Your task to perform on an android device: Turn on the flashlight Image 0: 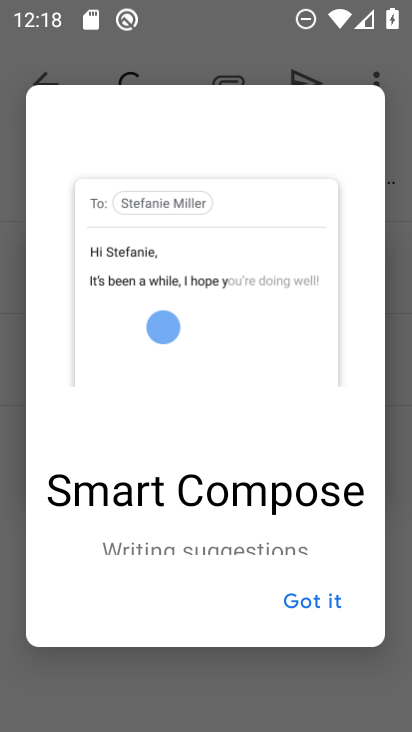
Step 0: press home button
Your task to perform on an android device: Turn on the flashlight Image 1: 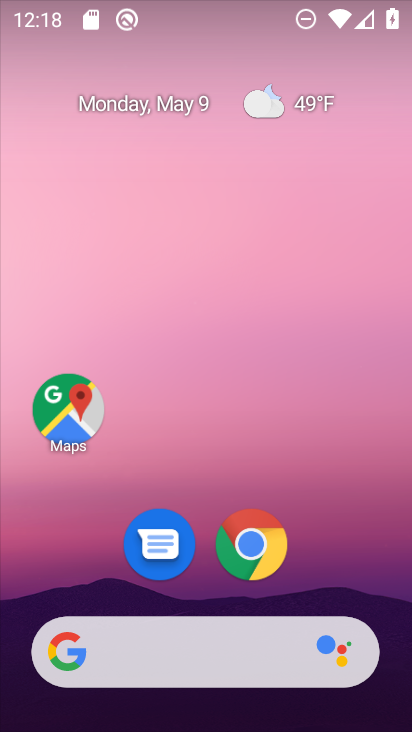
Step 1: drag from (345, 566) to (321, 54)
Your task to perform on an android device: Turn on the flashlight Image 2: 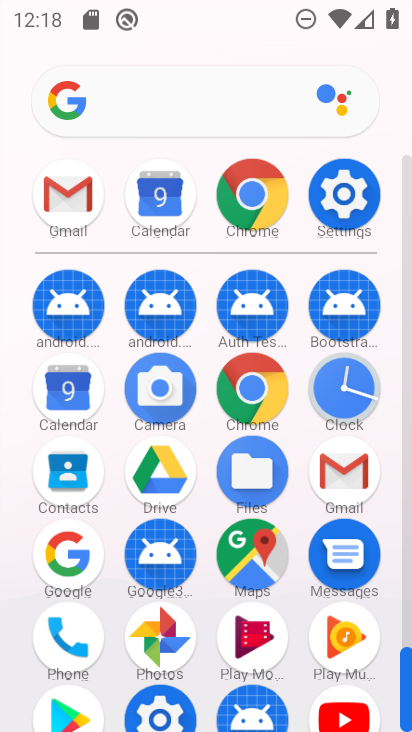
Step 2: click (346, 196)
Your task to perform on an android device: Turn on the flashlight Image 3: 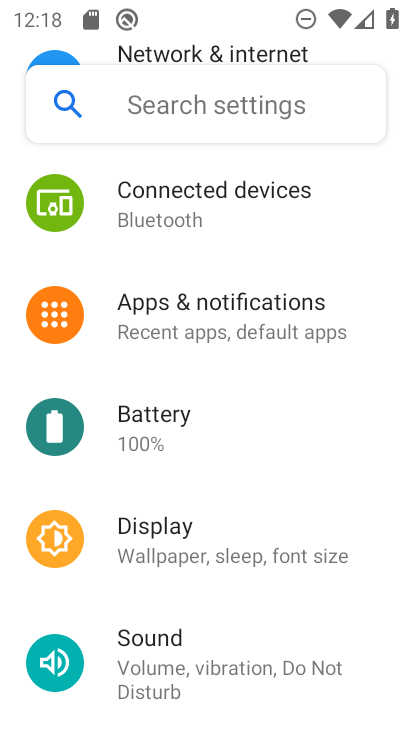
Step 3: task complete